Your task to perform on an android device: Open Chrome and go to the settings page Image 0: 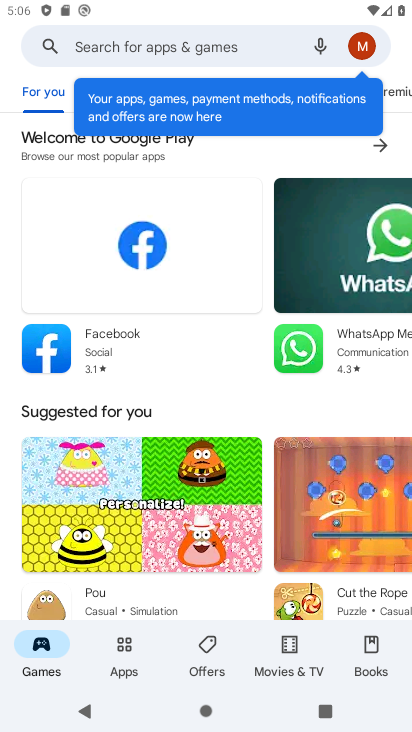
Step 0: press home button
Your task to perform on an android device: Open Chrome and go to the settings page Image 1: 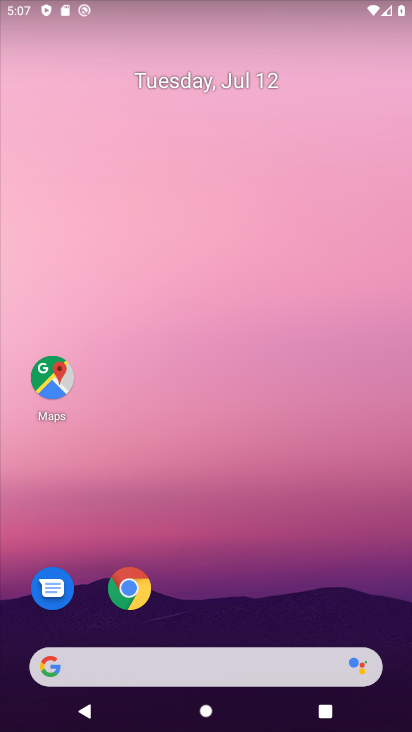
Step 1: drag from (291, 548) to (292, 104)
Your task to perform on an android device: Open Chrome and go to the settings page Image 2: 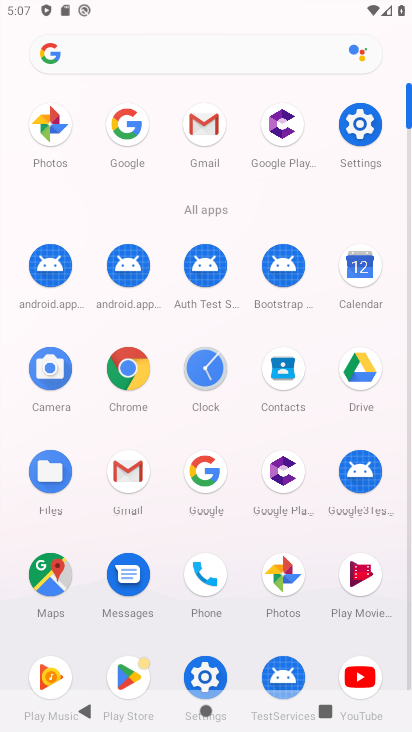
Step 2: click (125, 367)
Your task to perform on an android device: Open Chrome and go to the settings page Image 3: 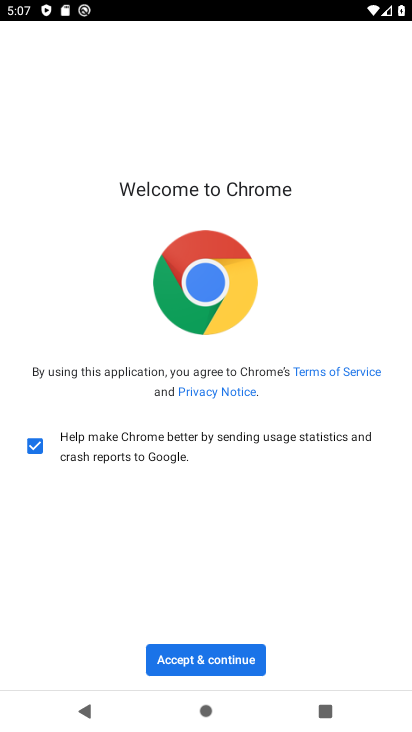
Step 3: click (222, 660)
Your task to perform on an android device: Open Chrome and go to the settings page Image 4: 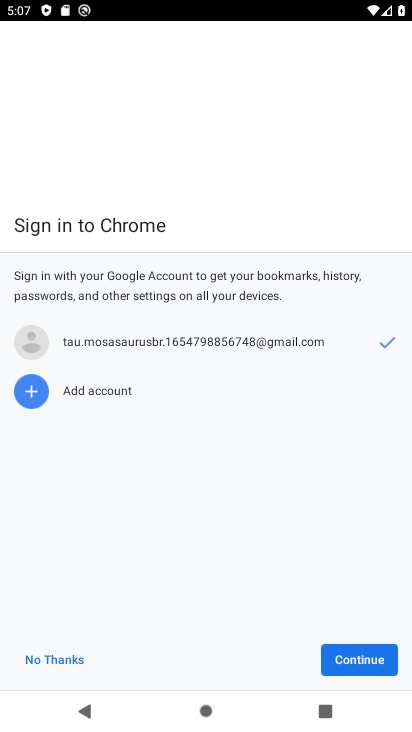
Step 4: click (350, 655)
Your task to perform on an android device: Open Chrome and go to the settings page Image 5: 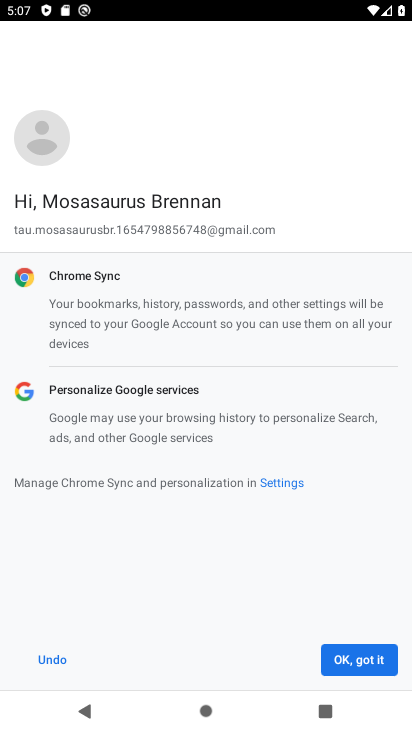
Step 5: click (336, 648)
Your task to perform on an android device: Open Chrome and go to the settings page Image 6: 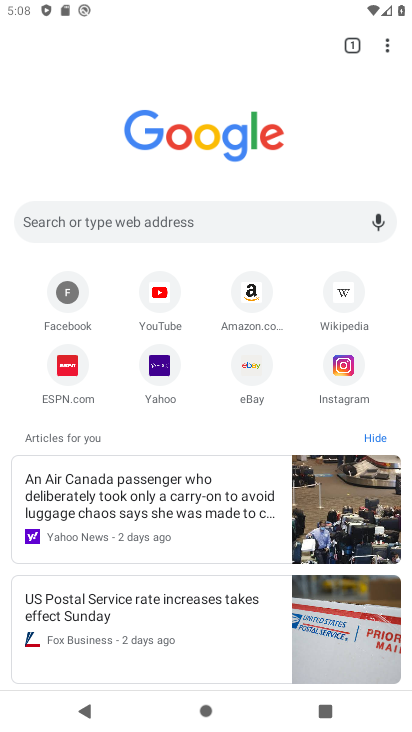
Step 6: task complete